Your task to perform on an android device: Open Wikipedia Image 0: 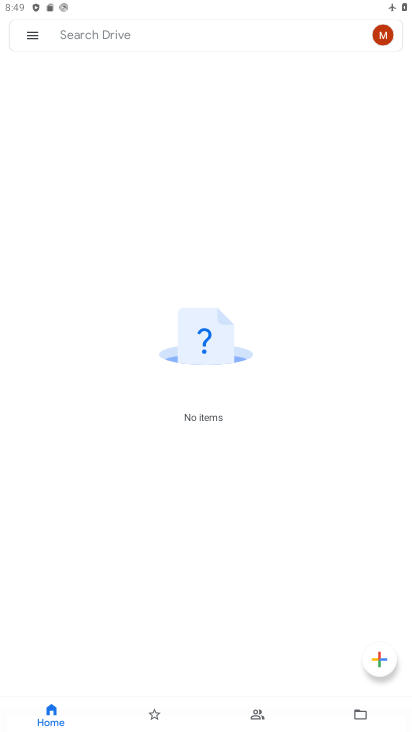
Step 0: press home button
Your task to perform on an android device: Open Wikipedia Image 1: 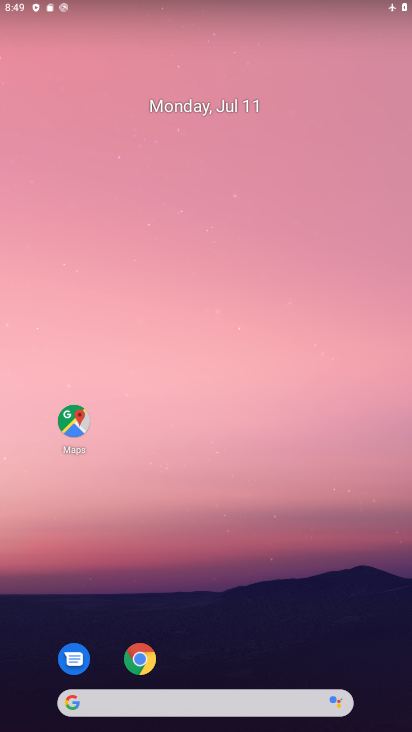
Step 1: click (179, 709)
Your task to perform on an android device: Open Wikipedia Image 2: 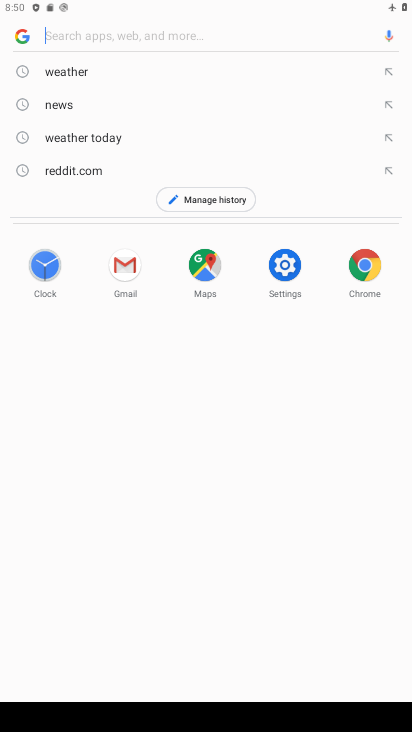
Step 2: type "Wikipedia"
Your task to perform on an android device: Open Wikipedia Image 3: 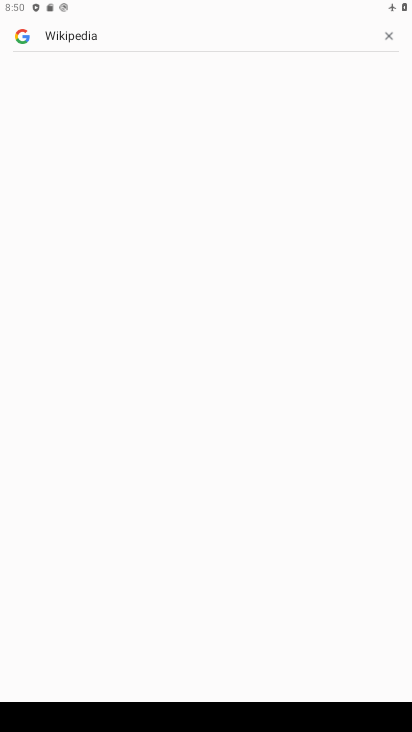
Step 3: task complete